Your task to perform on an android device: Play the last video I watched on Youtube Image 0: 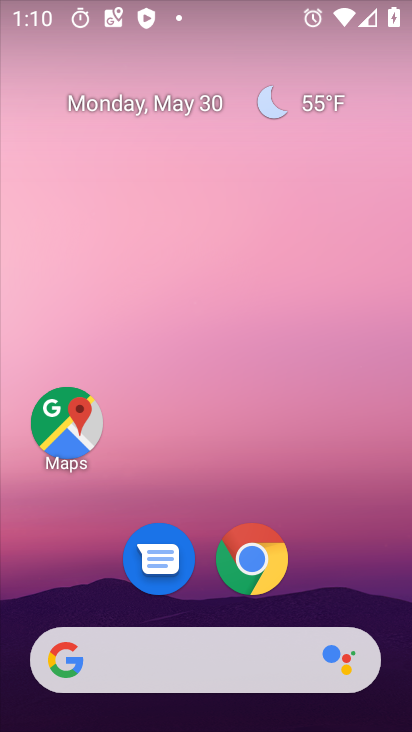
Step 0: drag from (171, 582) to (249, 166)
Your task to perform on an android device: Play the last video I watched on Youtube Image 1: 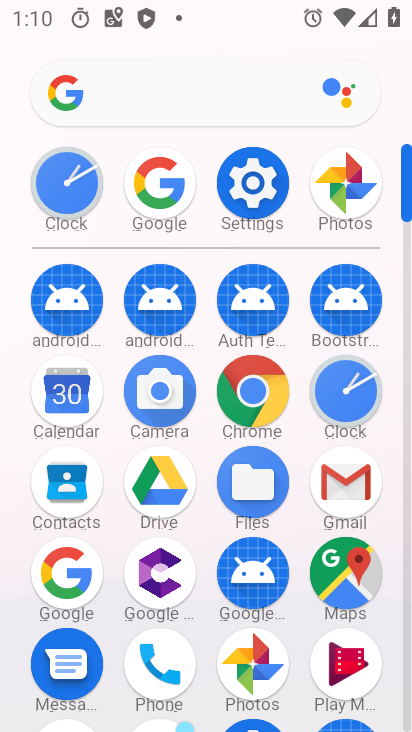
Step 1: drag from (214, 627) to (271, 114)
Your task to perform on an android device: Play the last video I watched on Youtube Image 2: 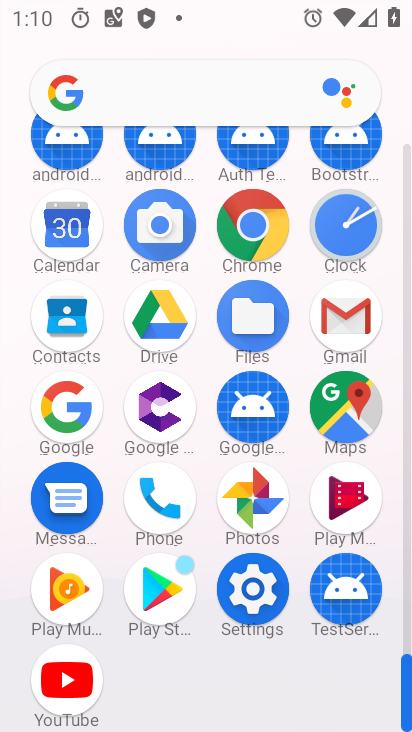
Step 2: click (61, 674)
Your task to perform on an android device: Play the last video I watched on Youtube Image 3: 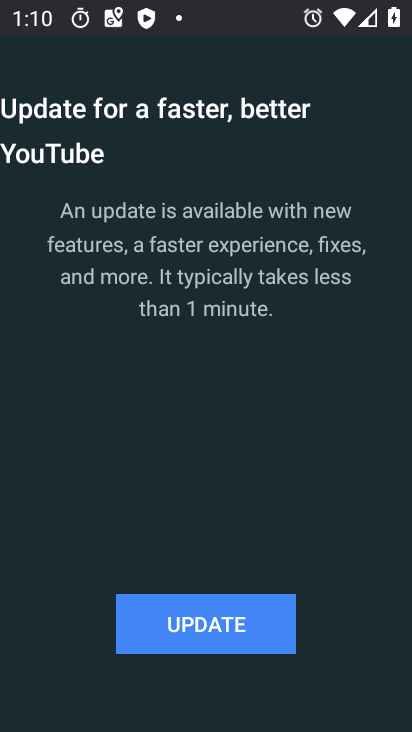
Step 3: click (199, 622)
Your task to perform on an android device: Play the last video I watched on Youtube Image 4: 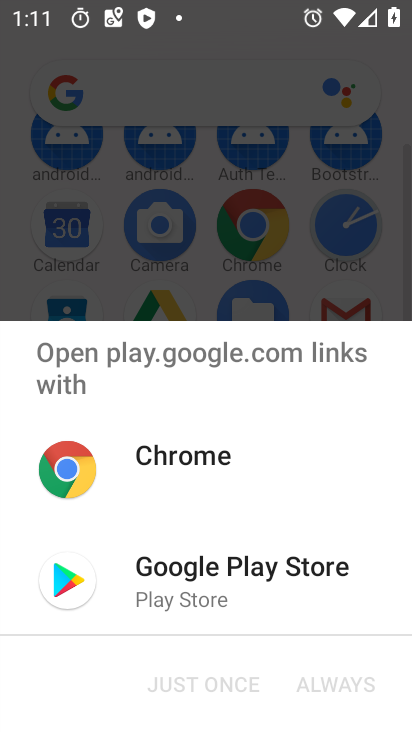
Step 4: click (218, 588)
Your task to perform on an android device: Play the last video I watched on Youtube Image 5: 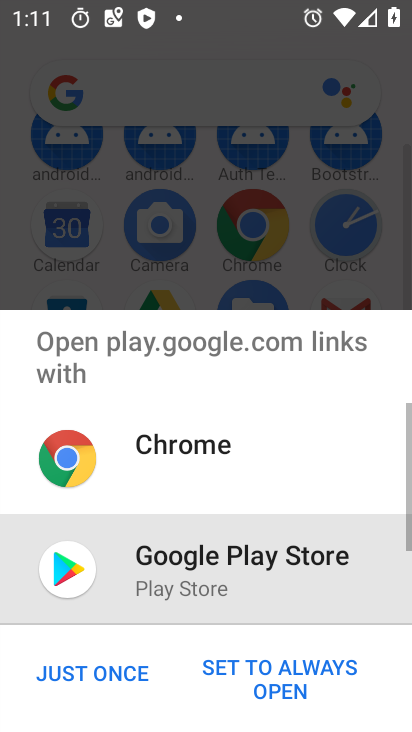
Step 5: click (80, 659)
Your task to perform on an android device: Play the last video I watched on Youtube Image 6: 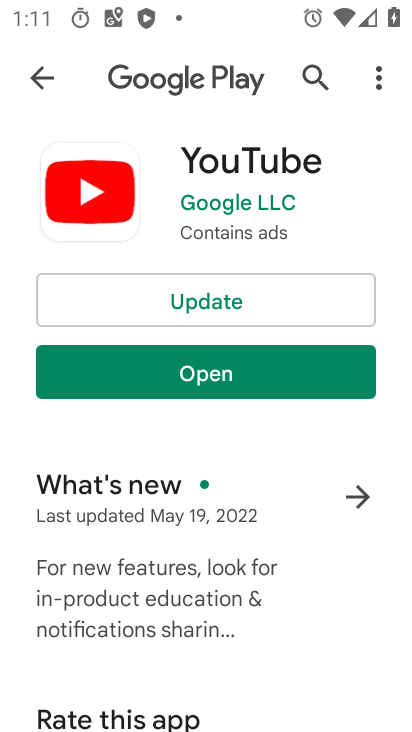
Step 6: click (206, 302)
Your task to perform on an android device: Play the last video I watched on Youtube Image 7: 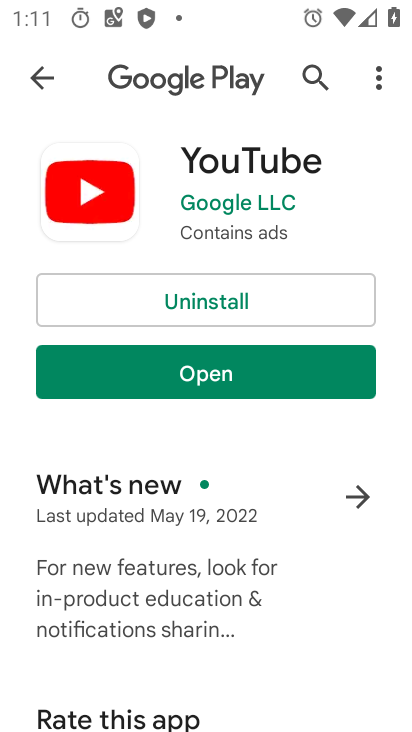
Step 7: click (245, 377)
Your task to perform on an android device: Play the last video I watched on Youtube Image 8: 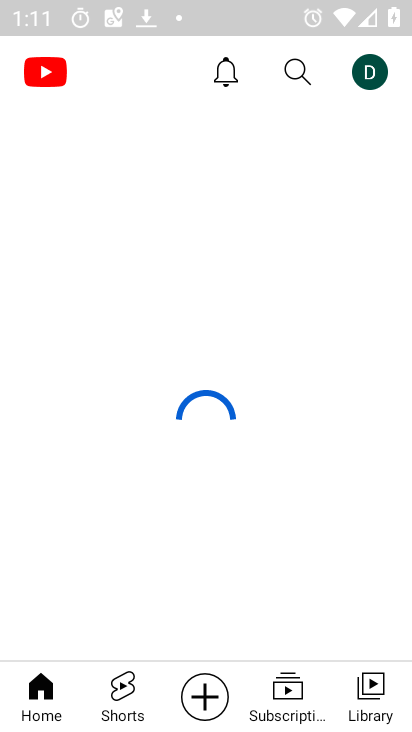
Step 8: click (374, 691)
Your task to perform on an android device: Play the last video I watched on Youtube Image 9: 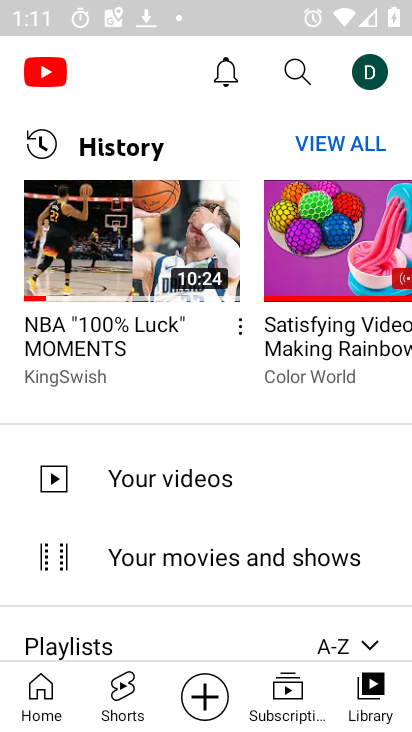
Step 9: click (126, 248)
Your task to perform on an android device: Play the last video I watched on Youtube Image 10: 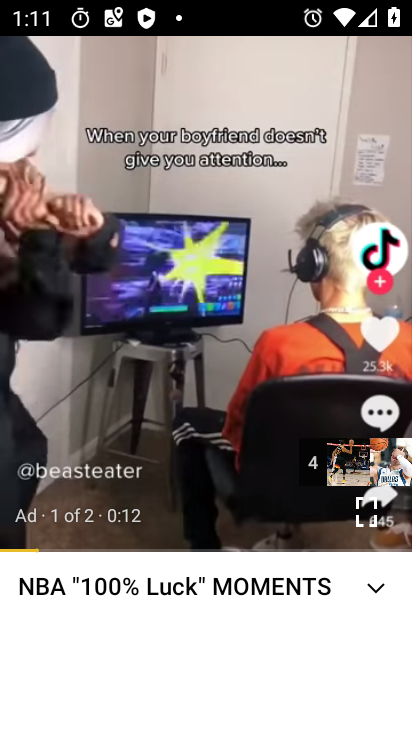
Step 10: task complete